Your task to perform on an android device: turn vacation reply on in the gmail app Image 0: 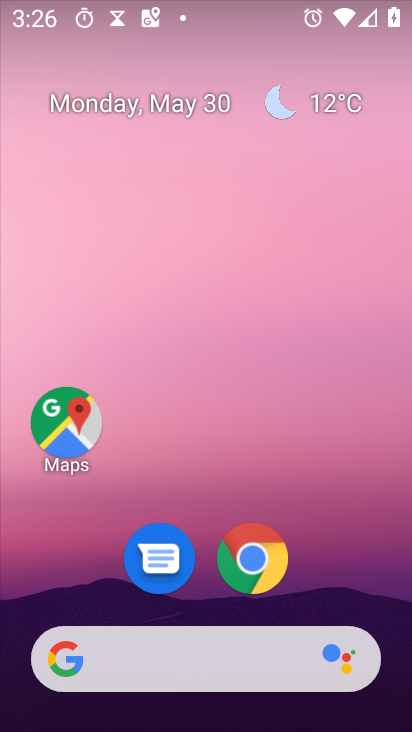
Step 0: drag from (194, 487) to (269, 95)
Your task to perform on an android device: turn vacation reply on in the gmail app Image 1: 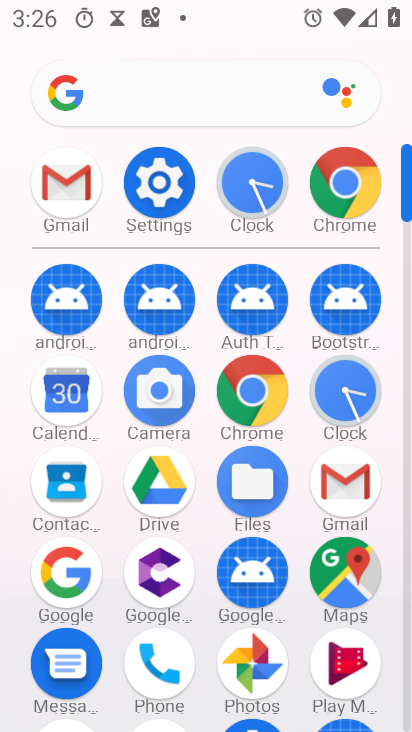
Step 1: click (60, 177)
Your task to perform on an android device: turn vacation reply on in the gmail app Image 2: 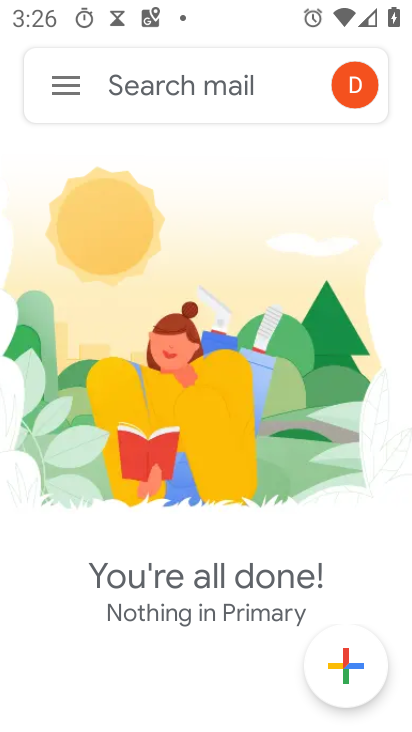
Step 2: click (64, 73)
Your task to perform on an android device: turn vacation reply on in the gmail app Image 3: 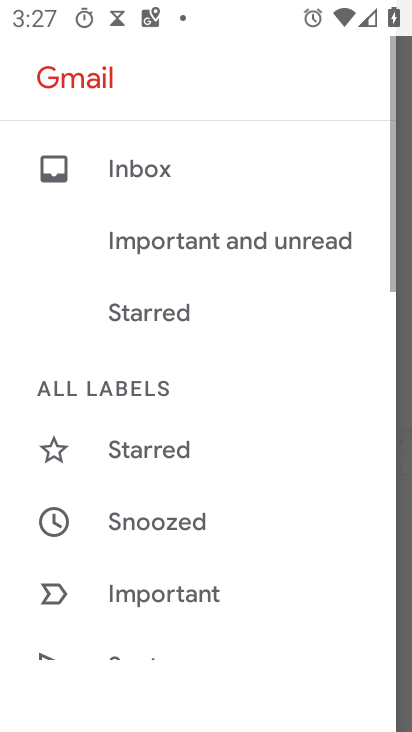
Step 3: drag from (154, 632) to (274, 64)
Your task to perform on an android device: turn vacation reply on in the gmail app Image 4: 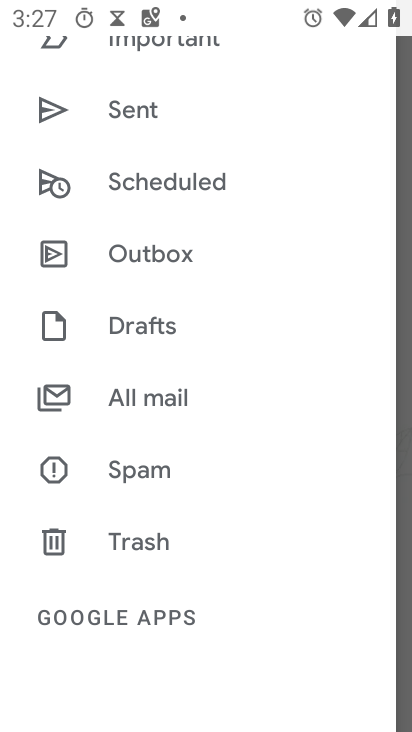
Step 4: drag from (122, 584) to (238, 109)
Your task to perform on an android device: turn vacation reply on in the gmail app Image 5: 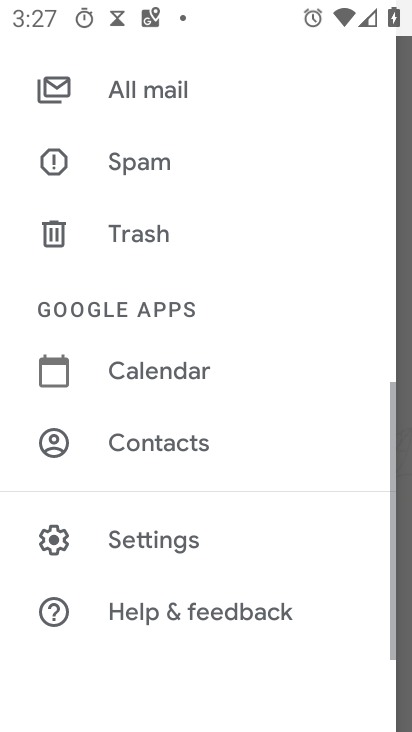
Step 5: click (164, 538)
Your task to perform on an android device: turn vacation reply on in the gmail app Image 6: 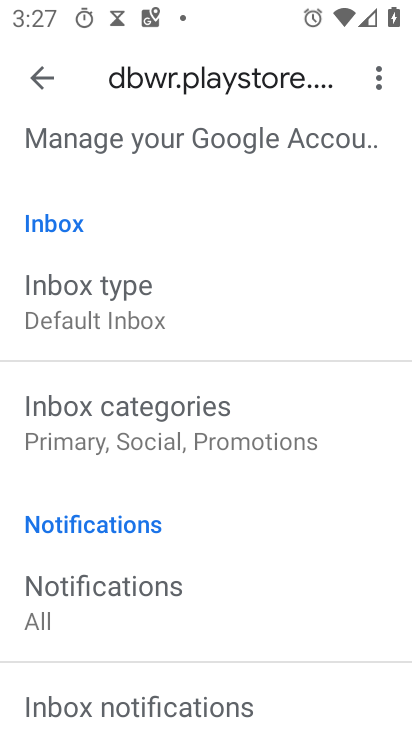
Step 6: drag from (133, 690) to (254, 208)
Your task to perform on an android device: turn vacation reply on in the gmail app Image 7: 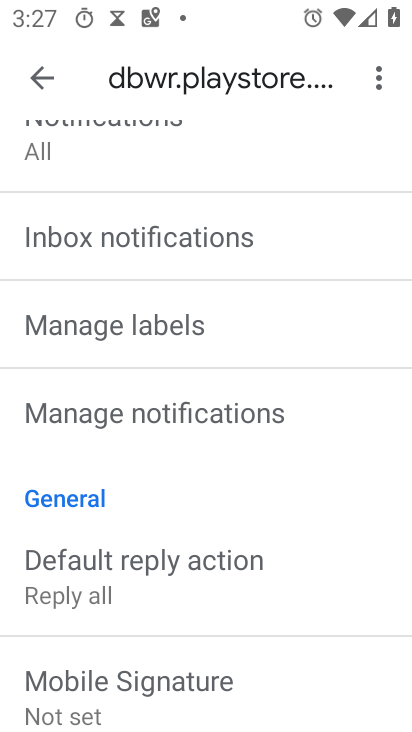
Step 7: drag from (143, 679) to (257, 178)
Your task to perform on an android device: turn vacation reply on in the gmail app Image 8: 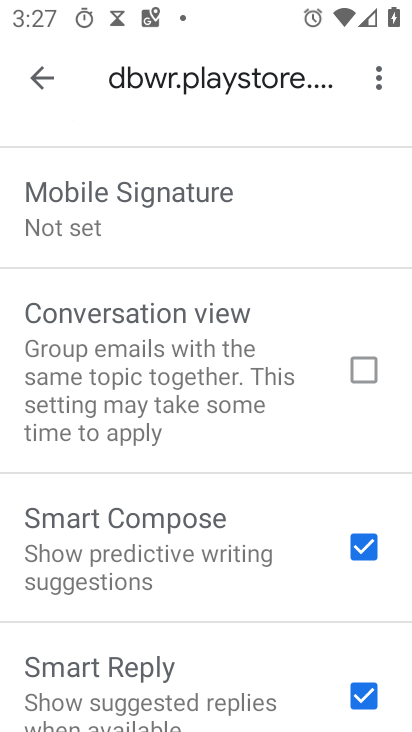
Step 8: drag from (146, 618) to (258, 125)
Your task to perform on an android device: turn vacation reply on in the gmail app Image 9: 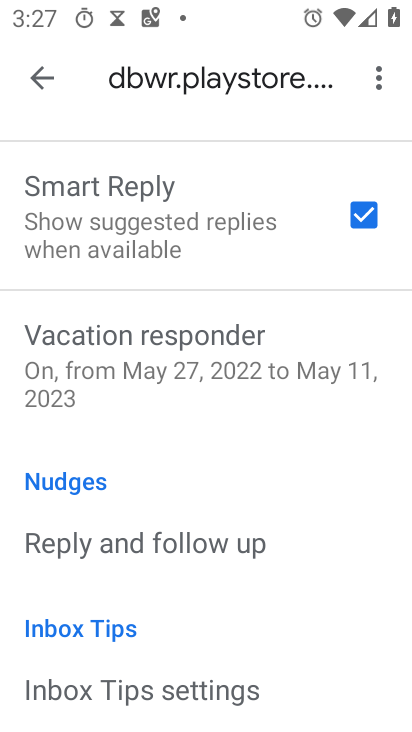
Step 9: click (85, 376)
Your task to perform on an android device: turn vacation reply on in the gmail app Image 10: 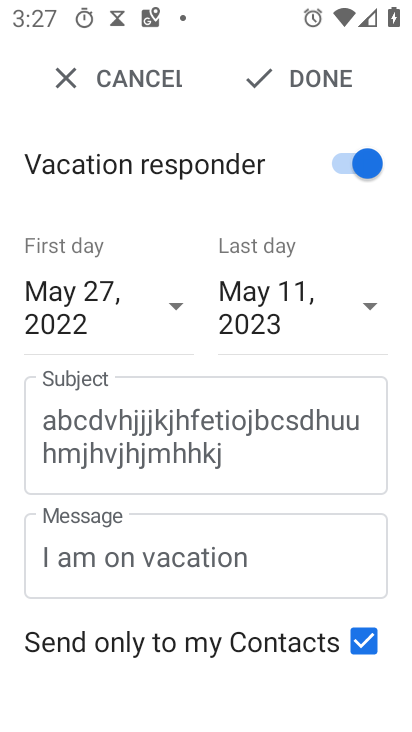
Step 10: task complete